Your task to perform on an android device: Show me productivity apps on the Play Store Image 0: 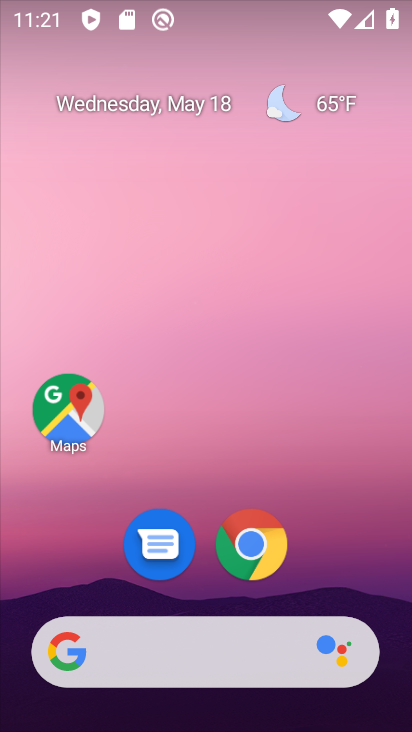
Step 0: drag from (334, 584) to (307, 134)
Your task to perform on an android device: Show me productivity apps on the Play Store Image 1: 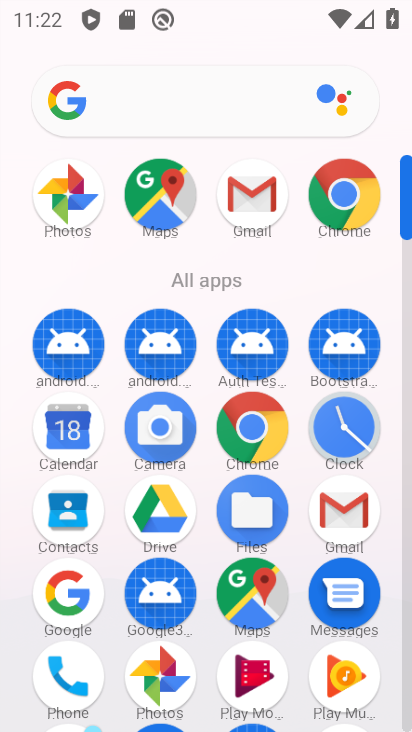
Step 1: drag from (289, 646) to (292, 390)
Your task to perform on an android device: Show me productivity apps on the Play Store Image 2: 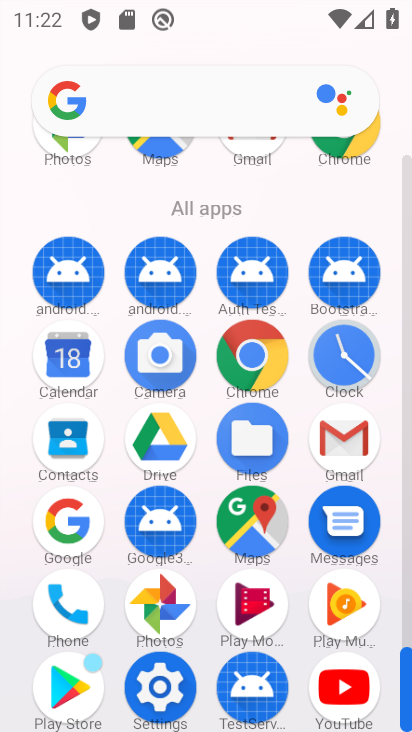
Step 2: click (75, 685)
Your task to perform on an android device: Show me productivity apps on the Play Store Image 3: 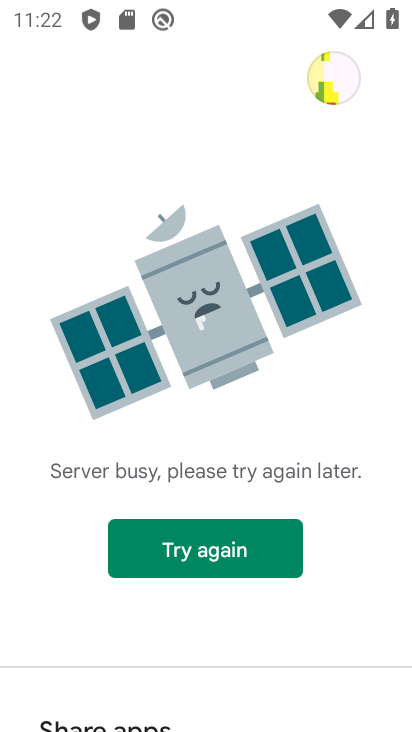
Step 3: click (250, 560)
Your task to perform on an android device: Show me productivity apps on the Play Store Image 4: 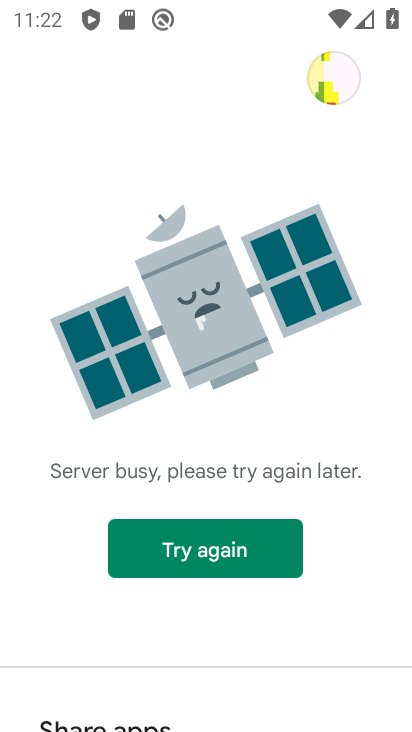
Step 4: task complete